Your task to perform on an android device: Open my contact list Image 0: 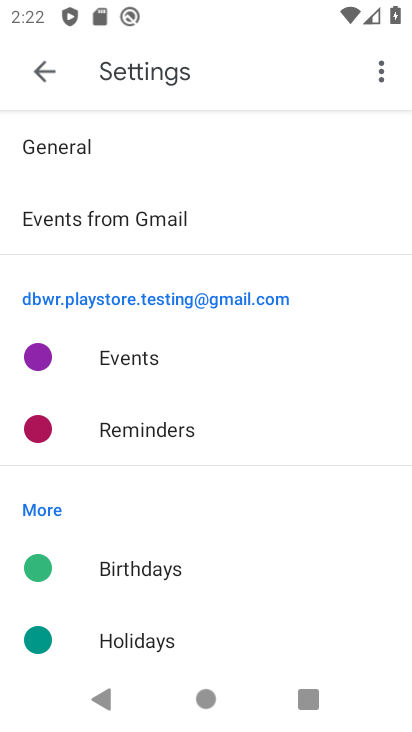
Step 0: press home button
Your task to perform on an android device: Open my contact list Image 1: 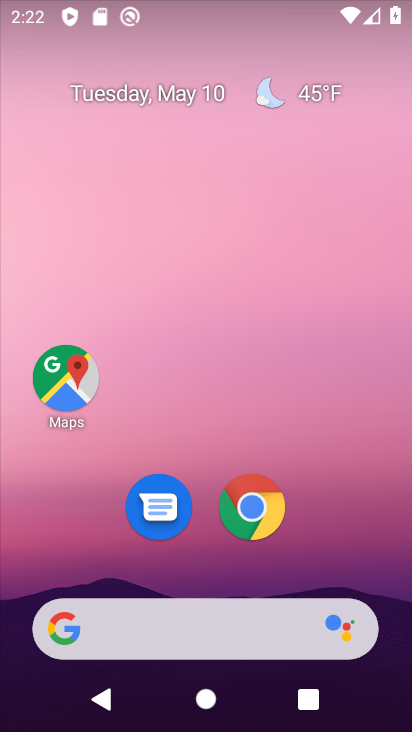
Step 1: drag from (134, 582) to (120, 313)
Your task to perform on an android device: Open my contact list Image 2: 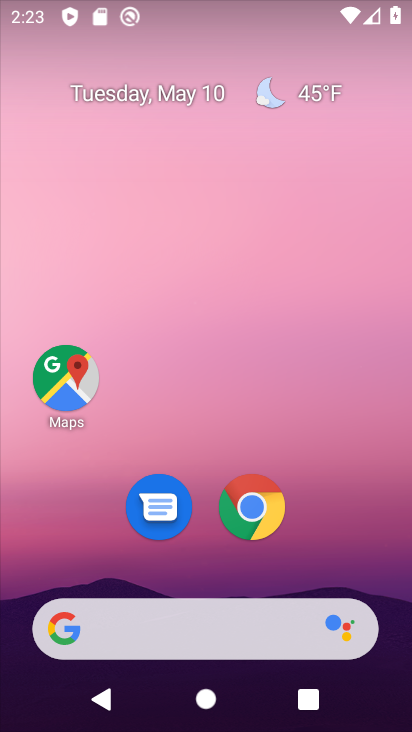
Step 2: drag from (199, 593) to (148, 240)
Your task to perform on an android device: Open my contact list Image 3: 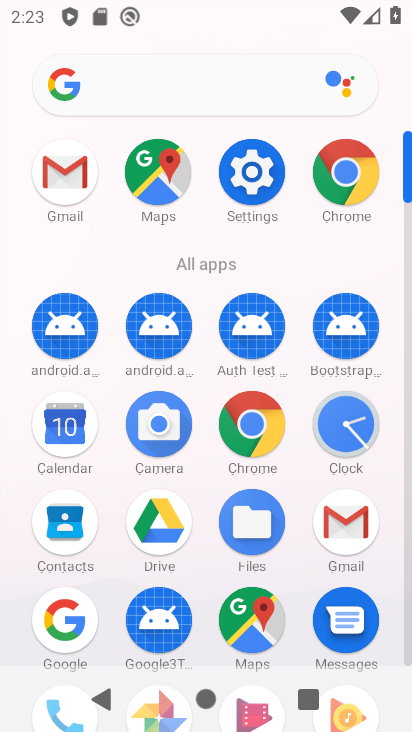
Step 3: click (78, 521)
Your task to perform on an android device: Open my contact list Image 4: 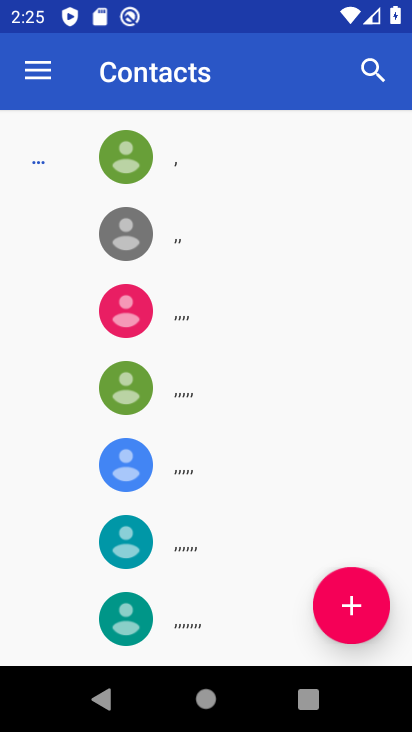
Step 4: task complete